Your task to perform on an android device: Install the Yahoo app Image 0: 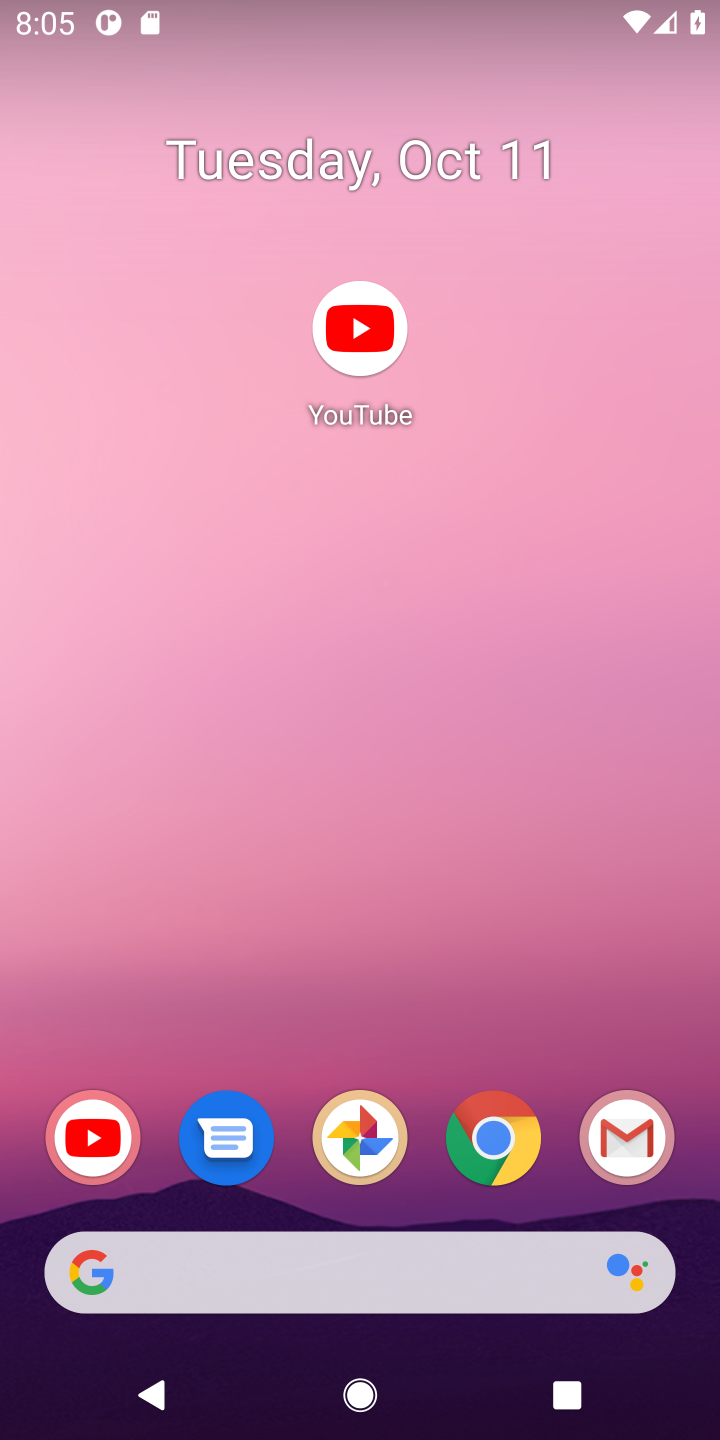
Step 0: click (363, 403)
Your task to perform on an android device: Install the Yahoo app Image 1: 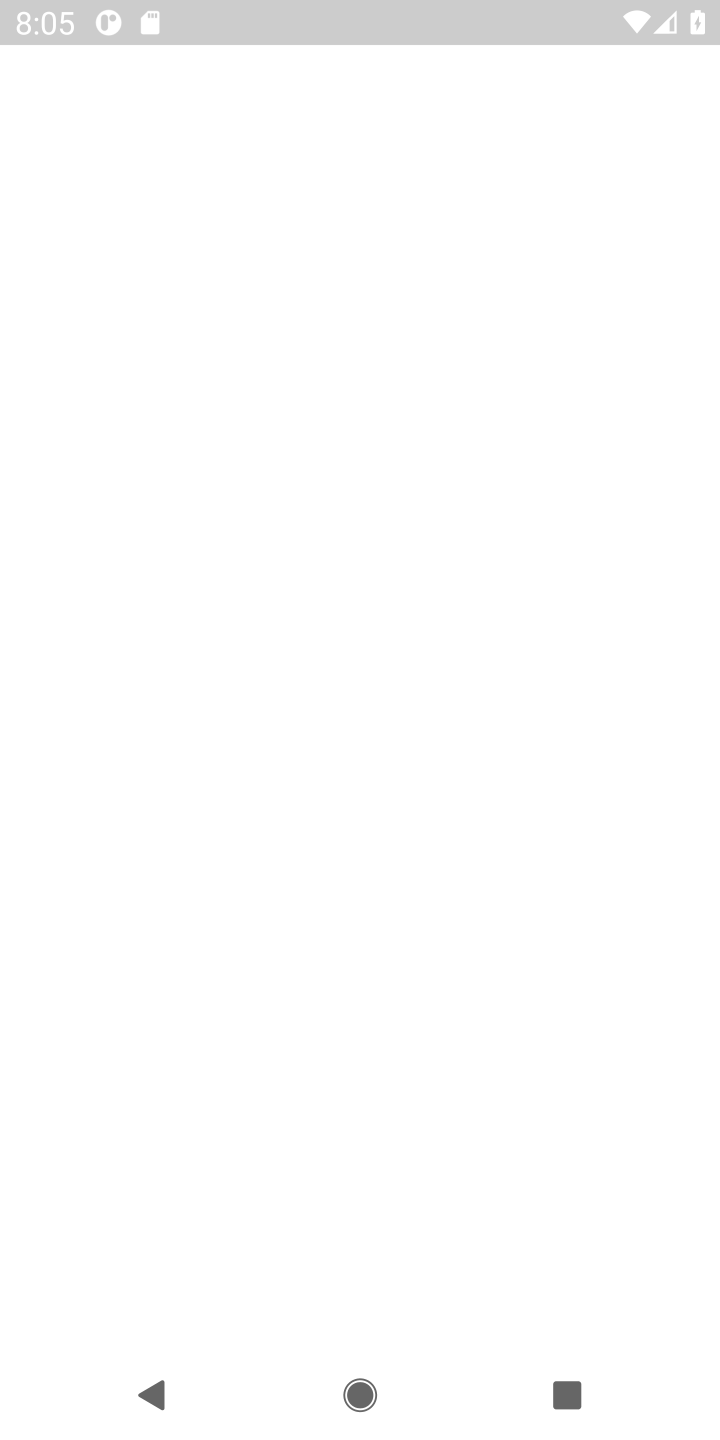
Step 1: press home button
Your task to perform on an android device: Install the Yahoo app Image 2: 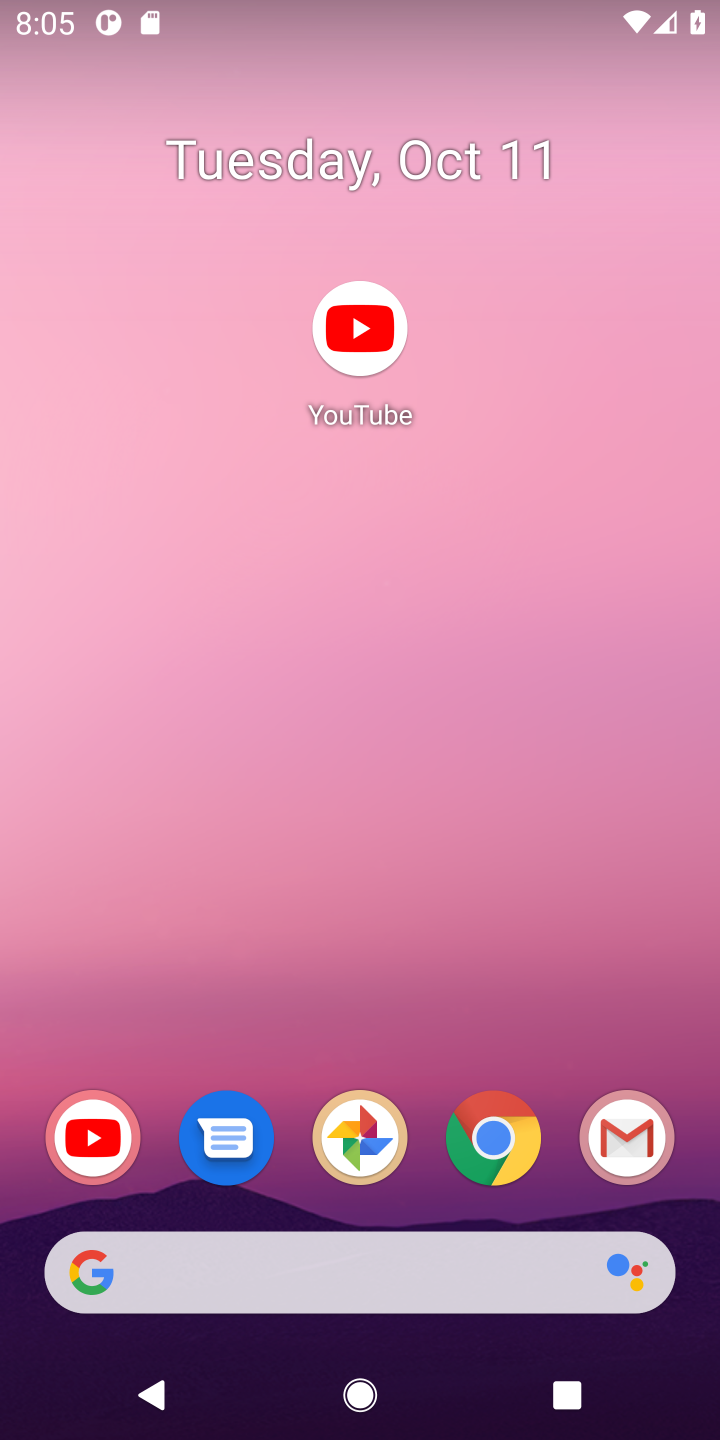
Step 2: drag from (421, 1136) to (275, 85)
Your task to perform on an android device: Install the Yahoo app Image 3: 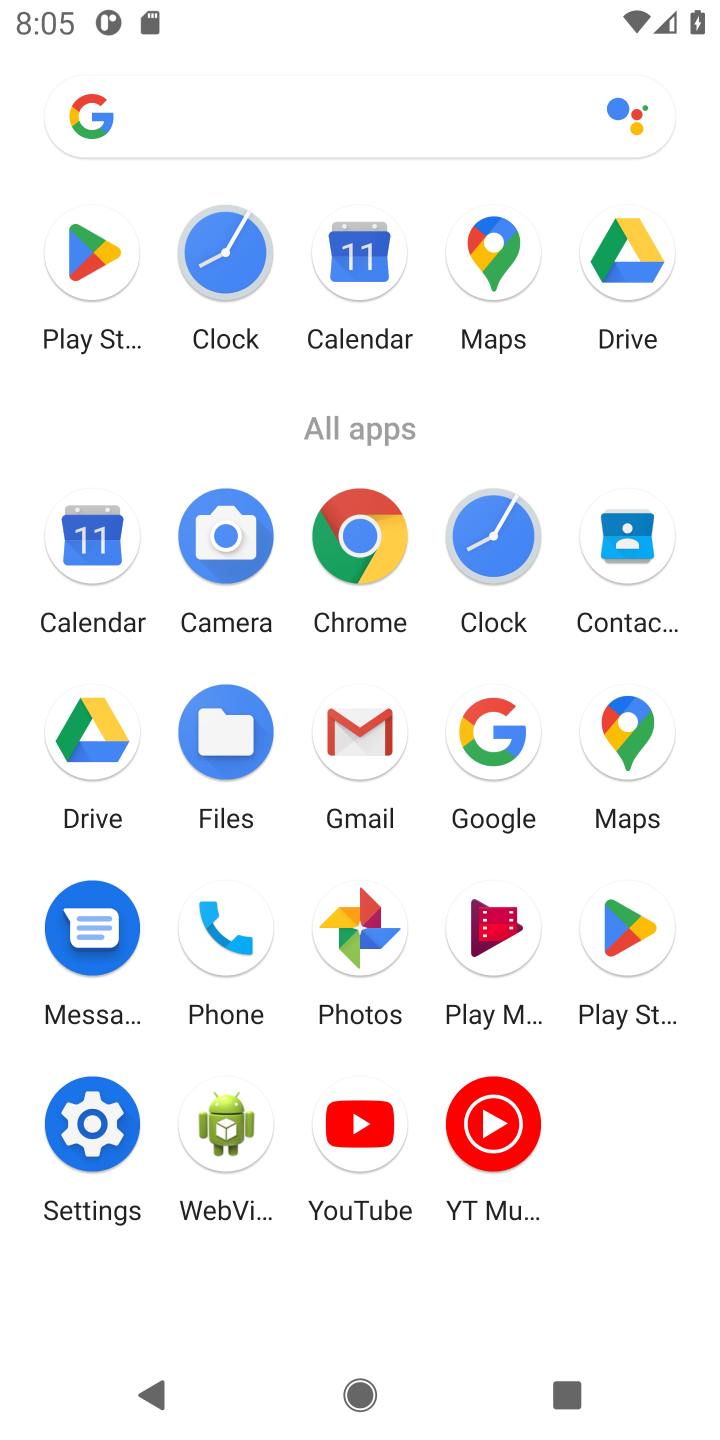
Step 3: click (618, 952)
Your task to perform on an android device: Install the Yahoo app Image 4: 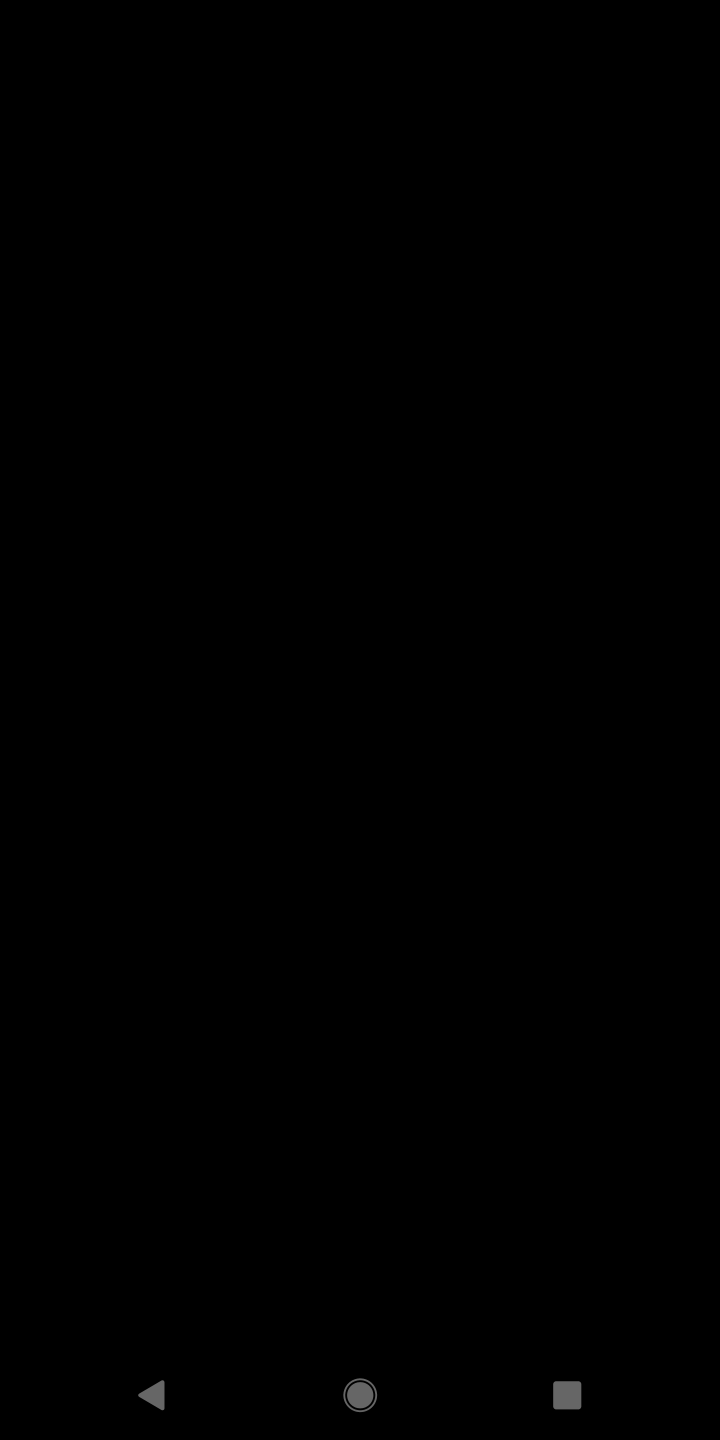
Step 4: task complete